Your task to perform on an android device: open device folders in google photos Image 0: 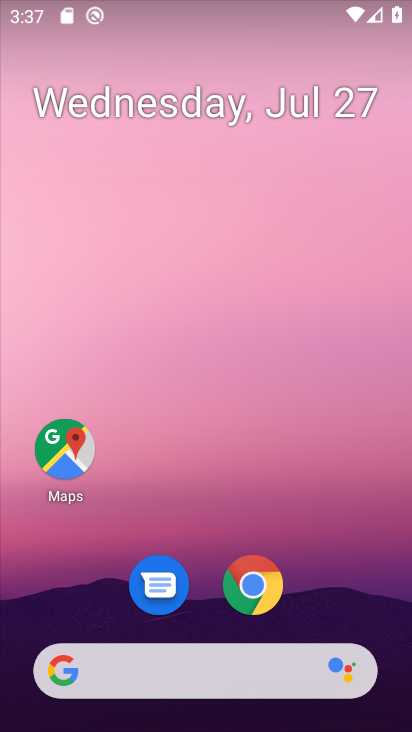
Step 0: drag from (352, 559) to (330, 4)
Your task to perform on an android device: open device folders in google photos Image 1: 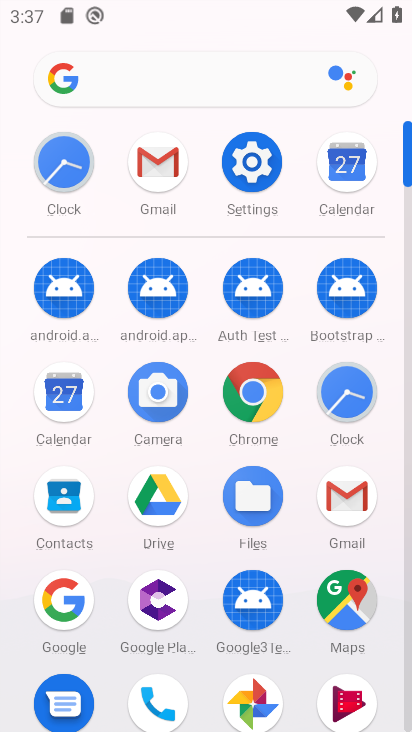
Step 1: drag from (215, 547) to (210, 384)
Your task to perform on an android device: open device folders in google photos Image 2: 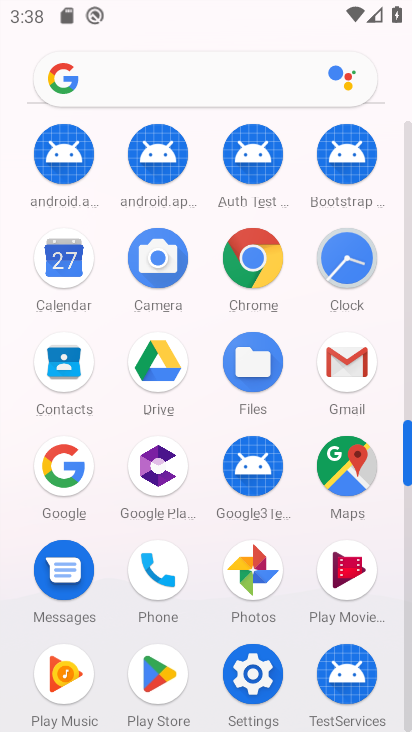
Step 2: click (247, 569)
Your task to perform on an android device: open device folders in google photos Image 3: 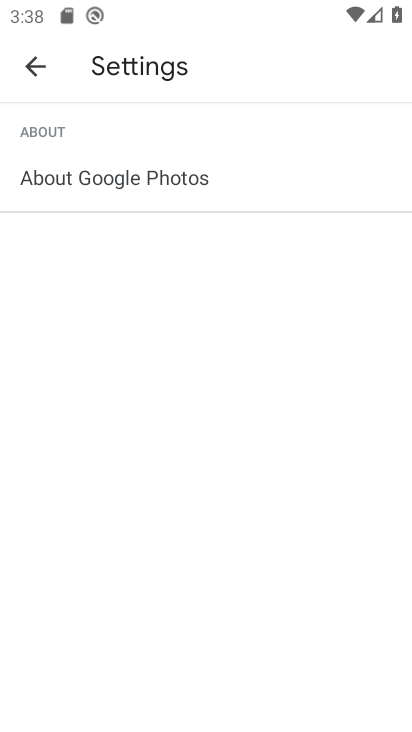
Step 3: click (28, 66)
Your task to perform on an android device: open device folders in google photos Image 4: 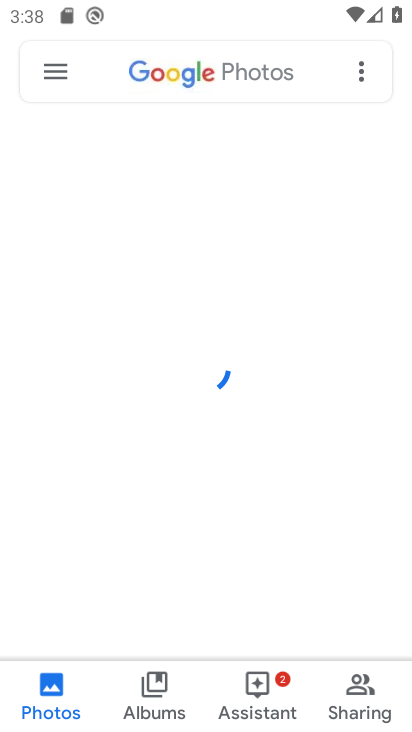
Step 4: click (63, 72)
Your task to perform on an android device: open device folders in google photos Image 5: 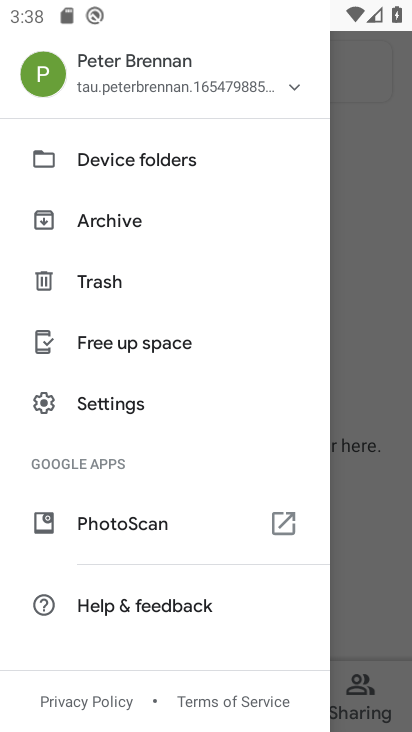
Step 5: click (114, 154)
Your task to perform on an android device: open device folders in google photos Image 6: 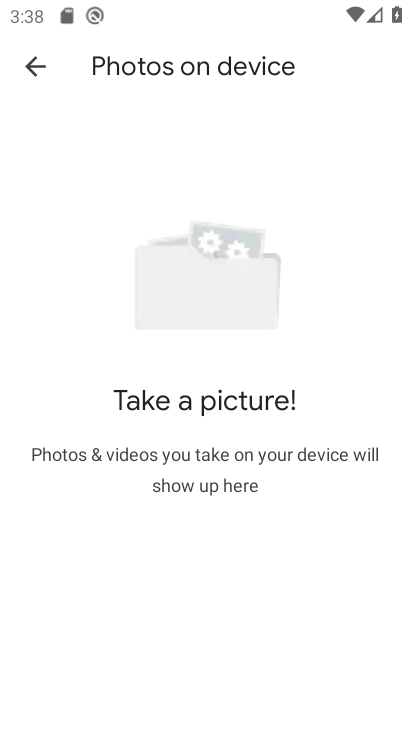
Step 6: task complete